Your task to perform on an android device: check storage Image 0: 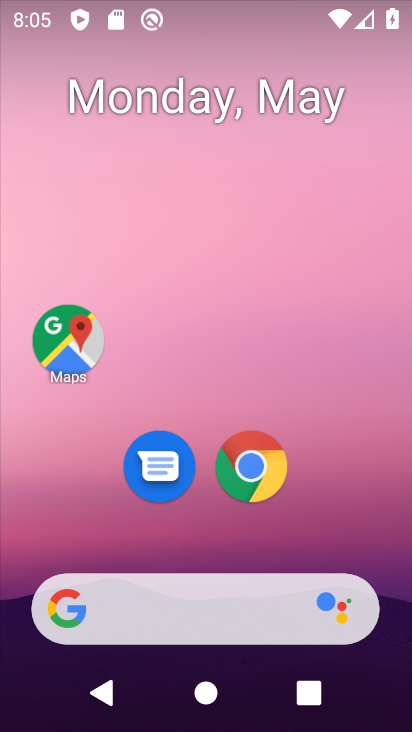
Step 0: drag from (235, 651) to (191, 13)
Your task to perform on an android device: check storage Image 1: 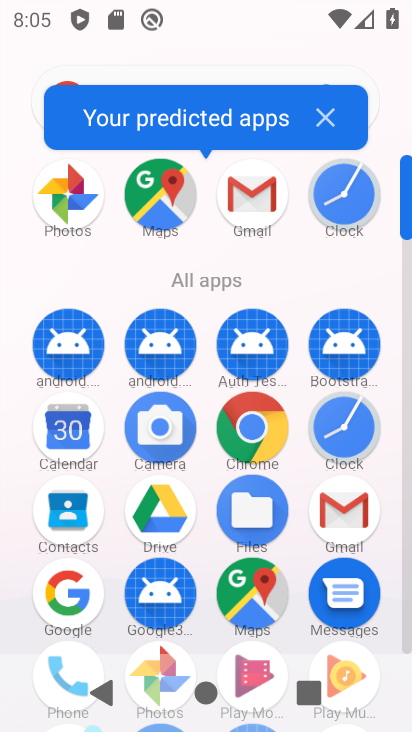
Step 1: drag from (123, 548) to (123, 416)
Your task to perform on an android device: check storage Image 2: 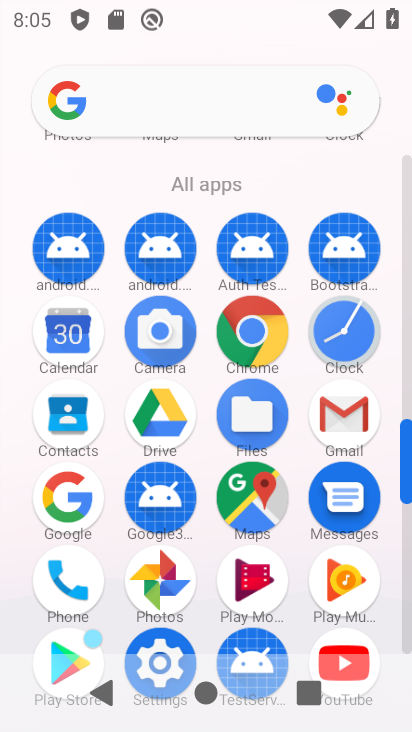
Step 2: click (161, 645)
Your task to perform on an android device: check storage Image 3: 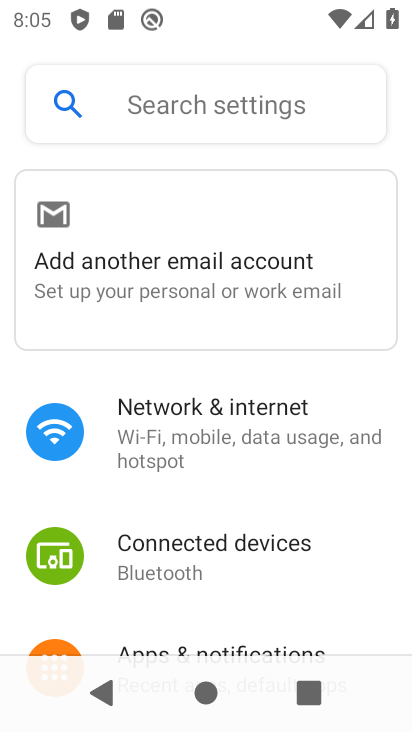
Step 3: click (195, 94)
Your task to perform on an android device: check storage Image 4: 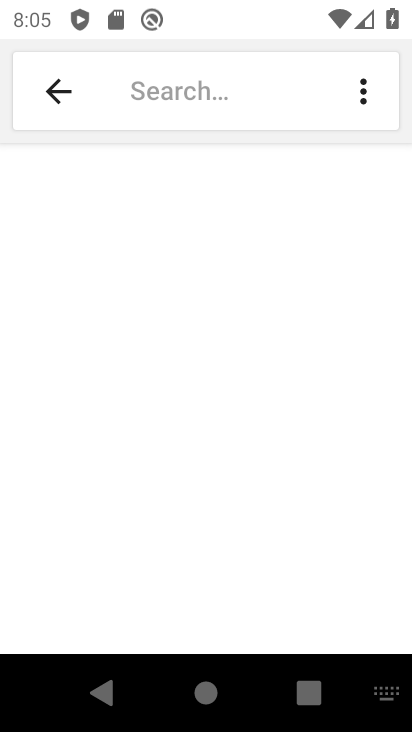
Step 4: click (384, 696)
Your task to perform on an android device: check storage Image 5: 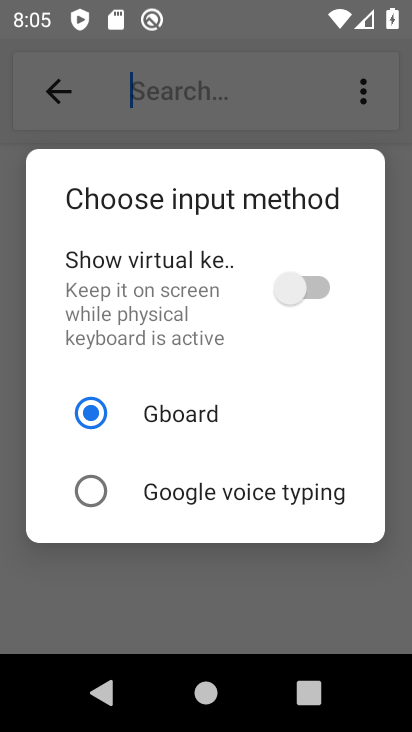
Step 5: click (306, 291)
Your task to perform on an android device: check storage Image 6: 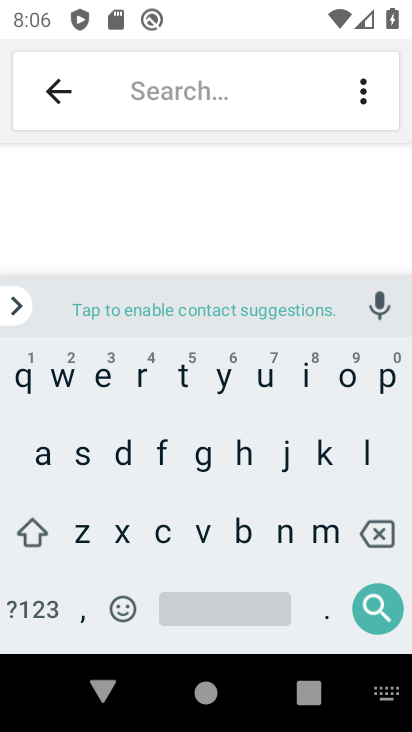
Step 6: click (77, 457)
Your task to perform on an android device: check storage Image 7: 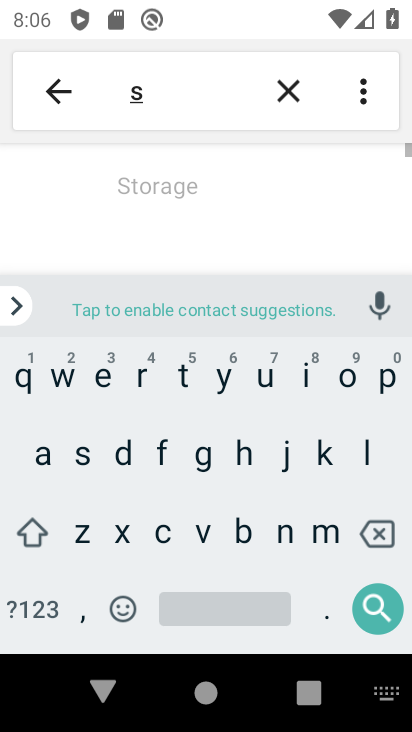
Step 7: click (181, 374)
Your task to perform on an android device: check storage Image 8: 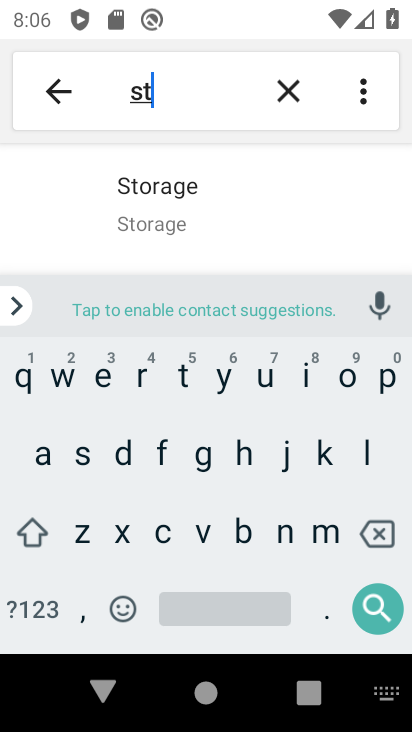
Step 8: click (171, 206)
Your task to perform on an android device: check storage Image 9: 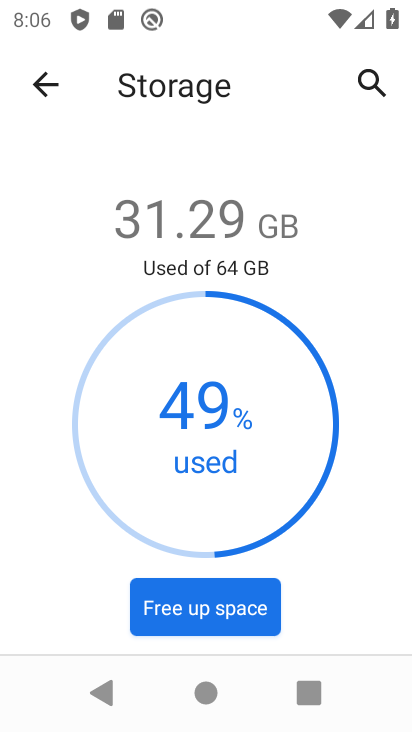
Step 9: task complete